Your task to perform on an android device: Do I have any events today? Image 0: 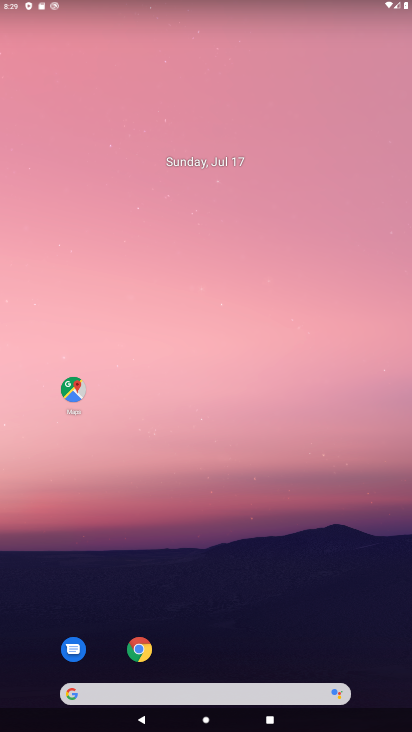
Step 0: drag from (197, 679) to (202, 20)
Your task to perform on an android device: Do I have any events today? Image 1: 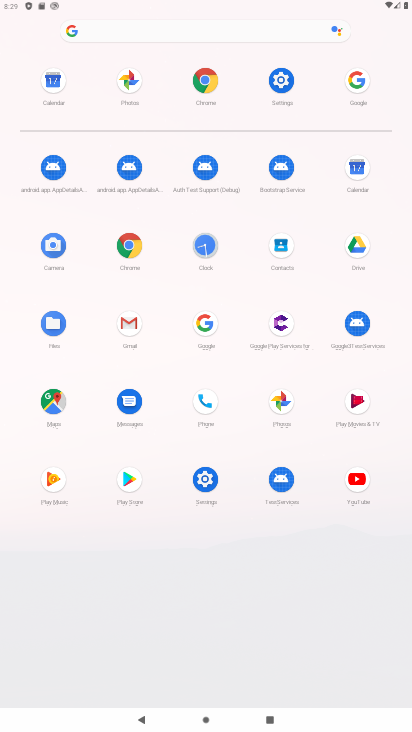
Step 1: click (361, 178)
Your task to perform on an android device: Do I have any events today? Image 2: 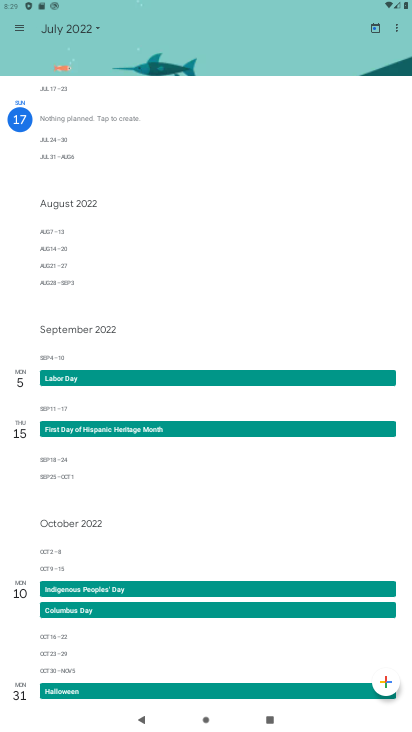
Step 2: task complete